Your task to perform on an android device: Search for bose soundsport free on ebay, select the first entry, and add it to the cart. Image 0: 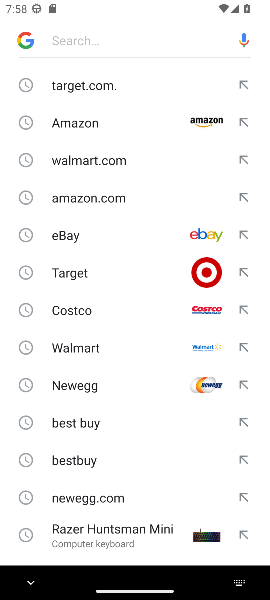
Step 0: click (56, 38)
Your task to perform on an android device: Search for bose soundsport free on ebay, select the first entry, and add it to the cart. Image 1: 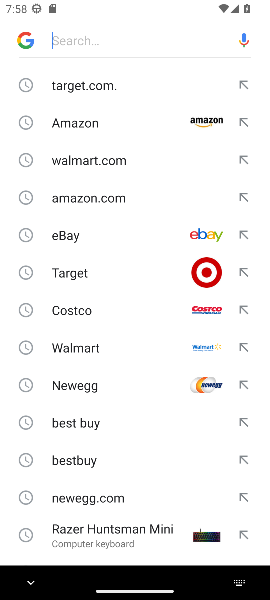
Step 1: type "ebay.com"
Your task to perform on an android device: Search for bose soundsport free on ebay, select the first entry, and add it to the cart. Image 2: 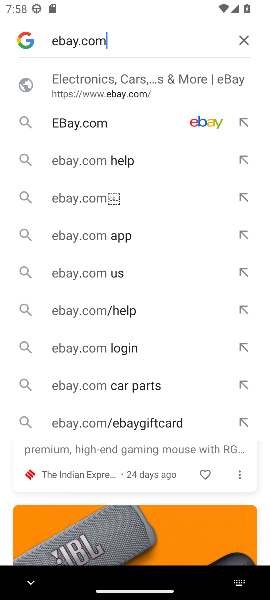
Step 2: click (100, 94)
Your task to perform on an android device: Search for bose soundsport free on ebay, select the first entry, and add it to the cart. Image 3: 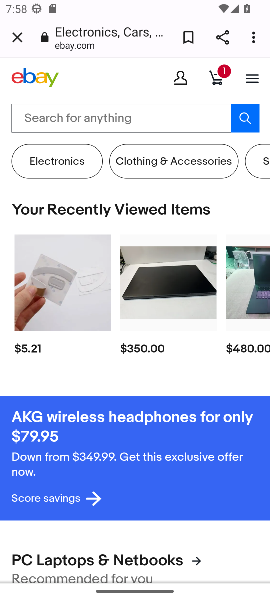
Step 3: click (62, 121)
Your task to perform on an android device: Search for bose soundsport free on ebay, select the first entry, and add it to the cart. Image 4: 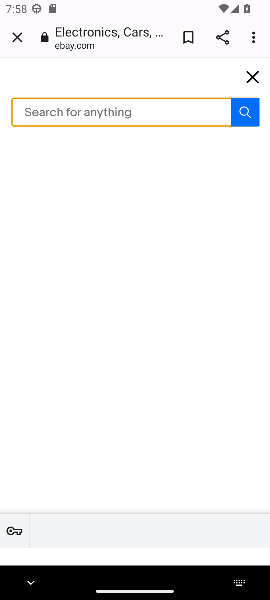
Step 4: type "bose soundsport free "
Your task to perform on an android device: Search for bose soundsport free on ebay, select the first entry, and add it to the cart. Image 5: 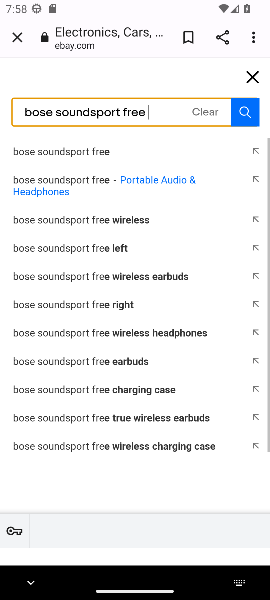
Step 5: click (69, 153)
Your task to perform on an android device: Search for bose soundsport free on ebay, select the first entry, and add it to the cart. Image 6: 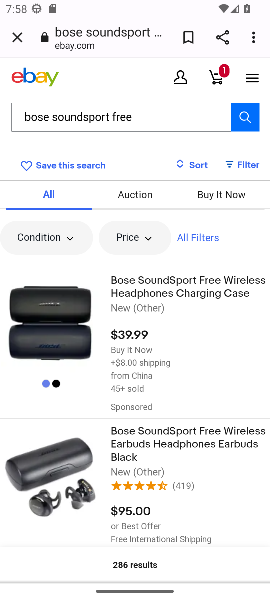
Step 6: click (59, 334)
Your task to perform on an android device: Search for bose soundsport free on ebay, select the first entry, and add it to the cart. Image 7: 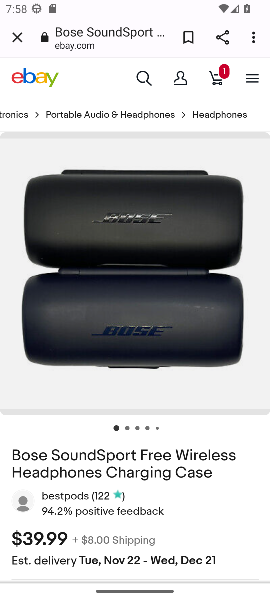
Step 7: drag from (89, 421) to (41, 198)
Your task to perform on an android device: Search for bose soundsport free on ebay, select the first entry, and add it to the cart. Image 8: 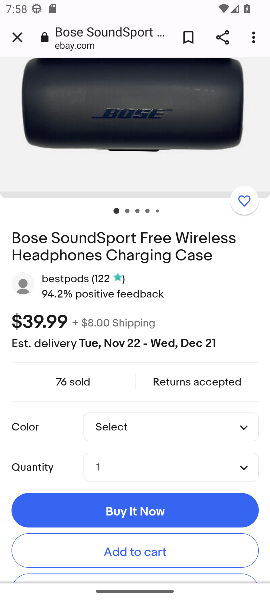
Step 8: drag from (62, 468) to (47, 299)
Your task to perform on an android device: Search for bose soundsport free on ebay, select the first entry, and add it to the cart. Image 9: 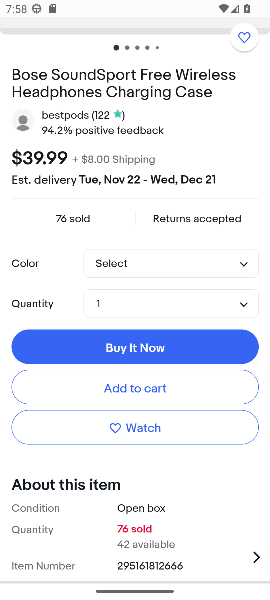
Step 9: click (100, 393)
Your task to perform on an android device: Search for bose soundsport free on ebay, select the first entry, and add it to the cart. Image 10: 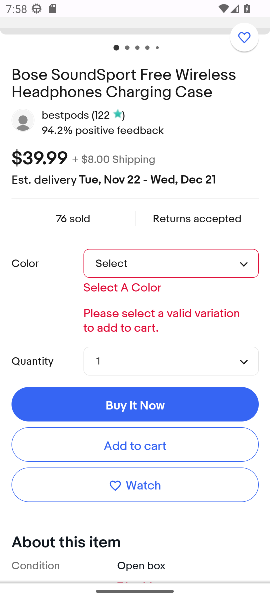
Step 10: click (242, 265)
Your task to perform on an android device: Search for bose soundsport free on ebay, select the first entry, and add it to the cart. Image 11: 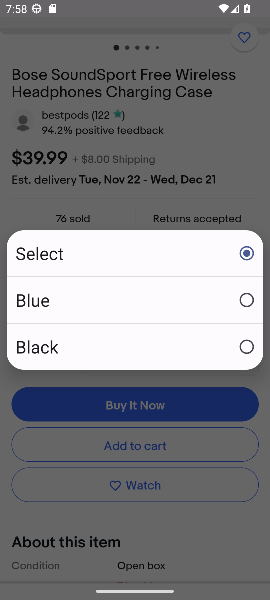
Step 11: click (24, 303)
Your task to perform on an android device: Search for bose soundsport free on ebay, select the first entry, and add it to the cart. Image 12: 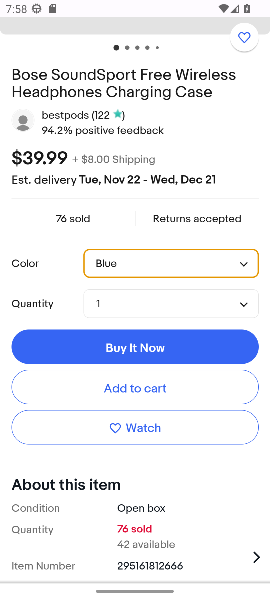
Step 12: click (110, 388)
Your task to perform on an android device: Search for bose soundsport free on ebay, select the first entry, and add it to the cart. Image 13: 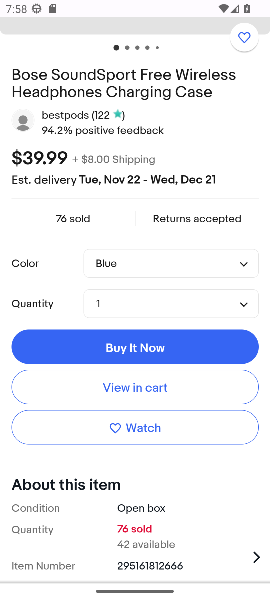
Step 13: task complete